Your task to perform on an android device: Show me productivity apps on the Play Store Image 0: 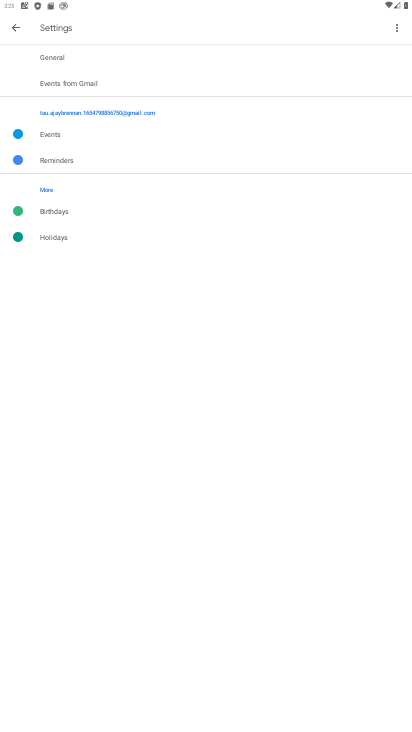
Step 0: press home button
Your task to perform on an android device: Show me productivity apps on the Play Store Image 1: 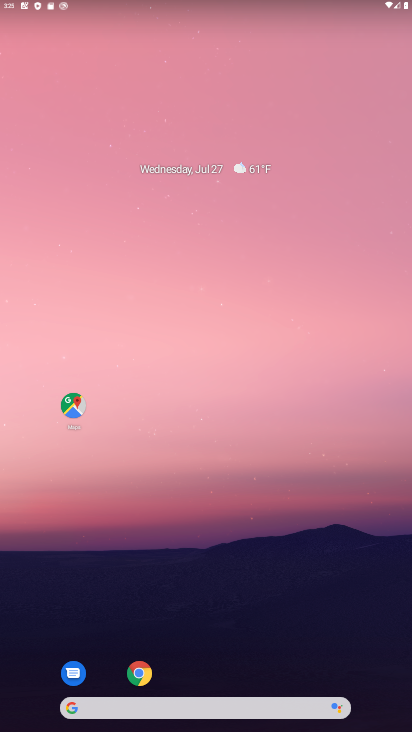
Step 1: drag from (306, 642) to (234, 3)
Your task to perform on an android device: Show me productivity apps on the Play Store Image 2: 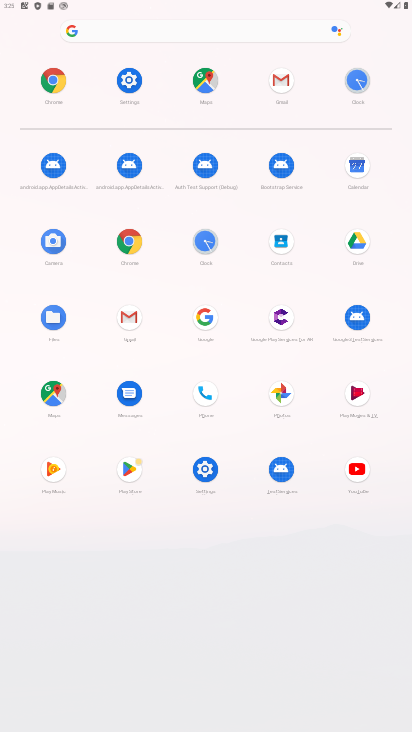
Step 2: click (131, 467)
Your task to perform on an android device: Show me productivity apps on the Play Store Image 3: 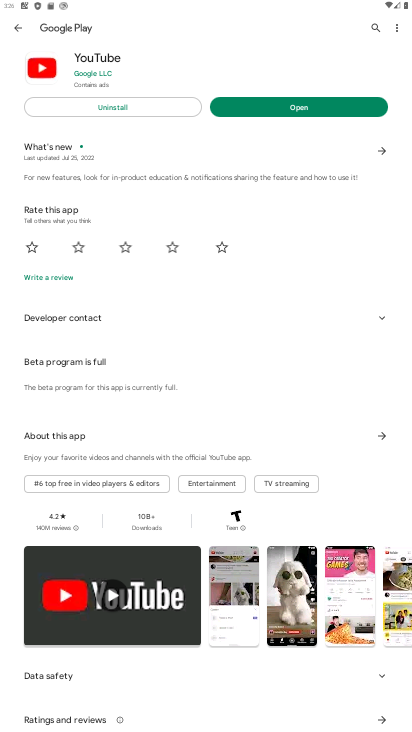
Step 3: click (12, 26)
Your task to perform on an android device: Show me productivity apps on the Play Store Image 4: 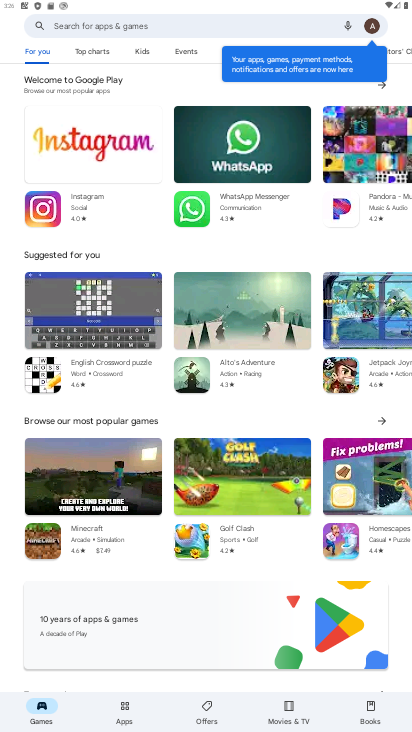
Step 4: click (124, 714)
Your task to perform on an android device: Show me productivity apps on the Play Store Image 5: 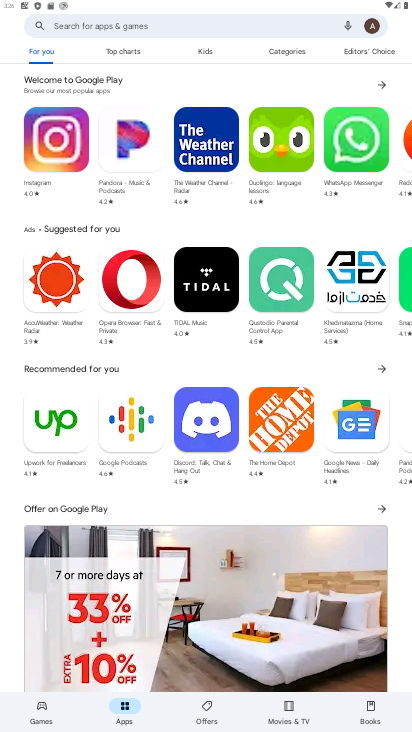
Step 5: click (291, 47)
Your task to perform on an android device: Show me productivity apps on the Play Store Image 6: 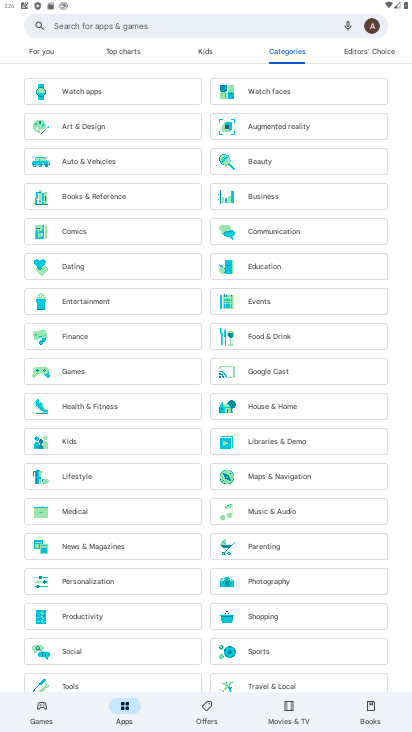
Step 6: click (137, 611)
Your task to perform on an android device: Show me productivity apps on the Play Store Image 7: 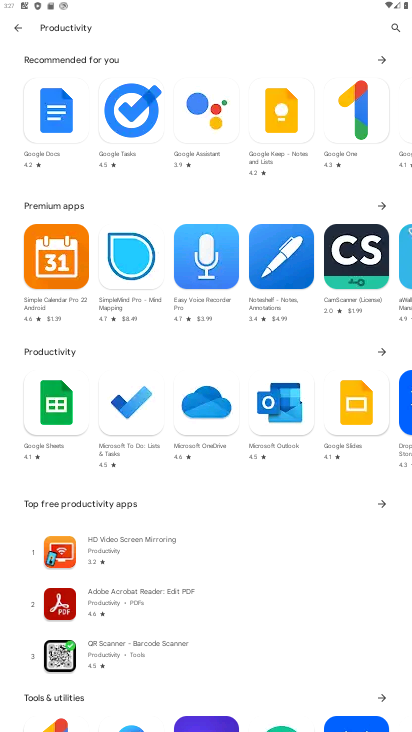
Step 7: task complete